Your task to perform on an android device: Search for seafood restaurants on Google Maps Image 0: 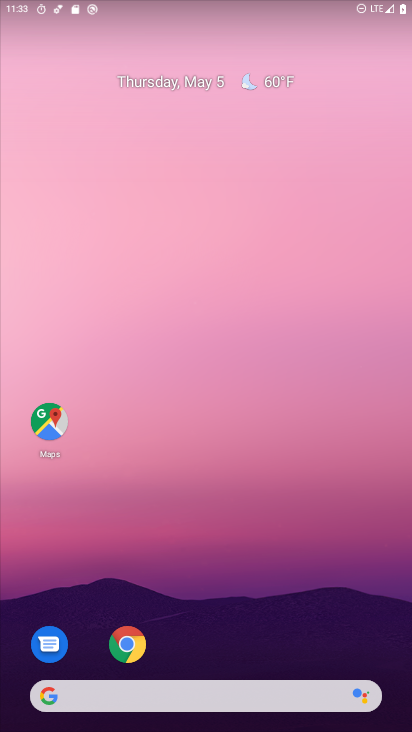
Step 0: drag from (354, 603) to (376, 71)
Your task to perform on an android device: Search for seafood restaurants on Google Maps Image 1: 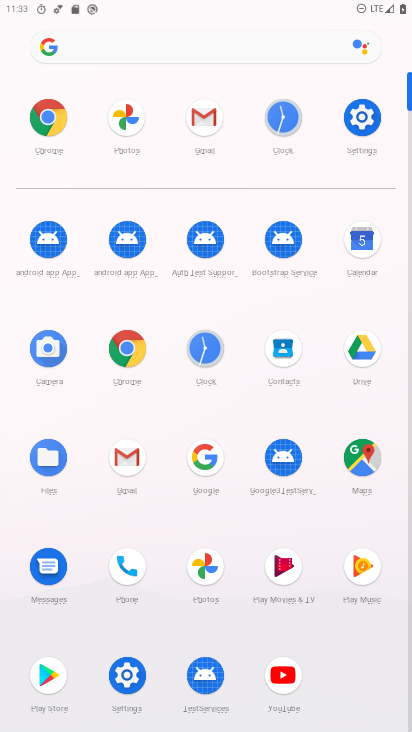
Step 1: click (358, 468)
Your task to perform on an android device: Search for seafood restaurants on Google Maps Image 2: 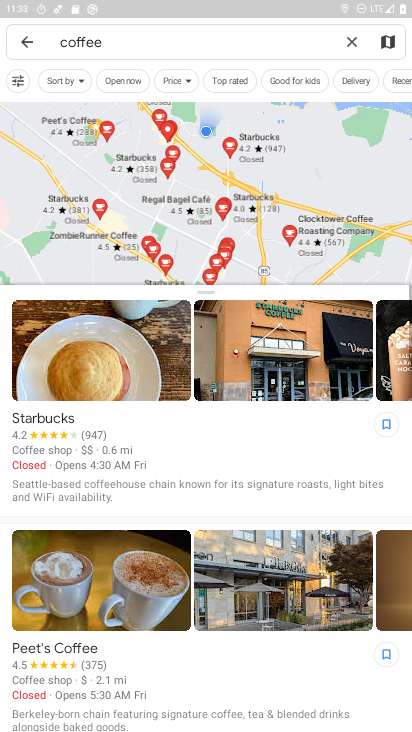
Step 2: click (353, 43)
Your task to perform on an android device: Search for seafood restaurants on Google Maps Image 3: 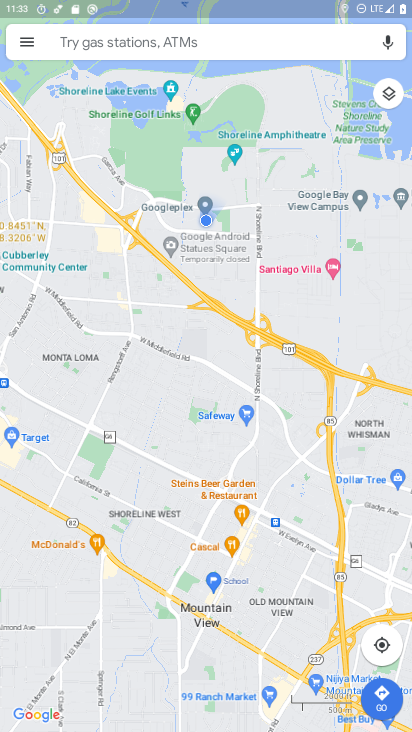
Step 3: click (188, 38)
Your task to perform on an android device: Search for seafood restaurants on Google Maps Image 4: 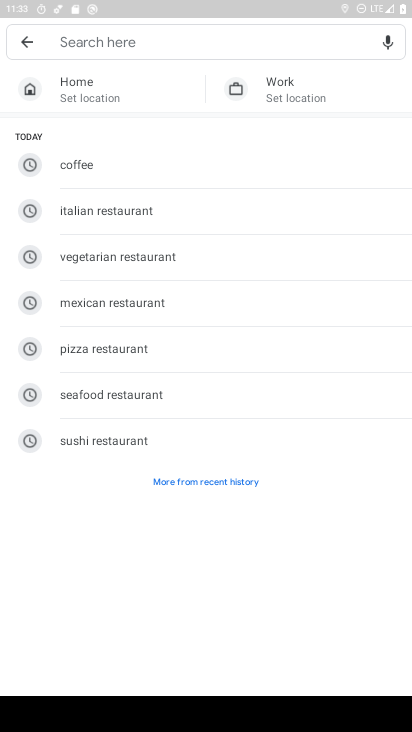
Step 4: click (136, 400)
Your task to perform on an android device: Search for seafood restaurants on Google Maps Image 5: 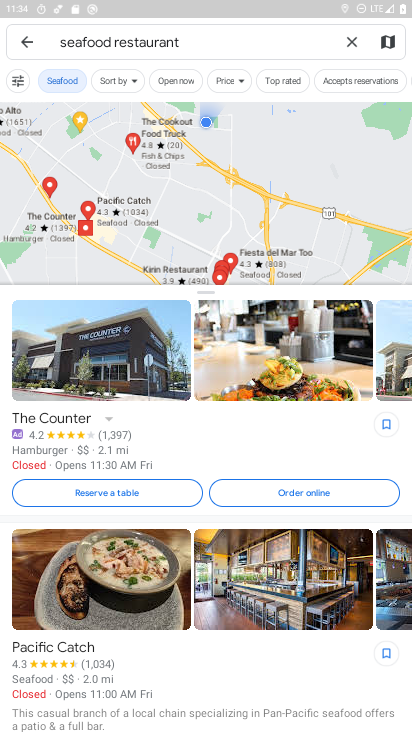
Step 5: task complete